Your task to perform on an android device: change notifications settings Image 0: 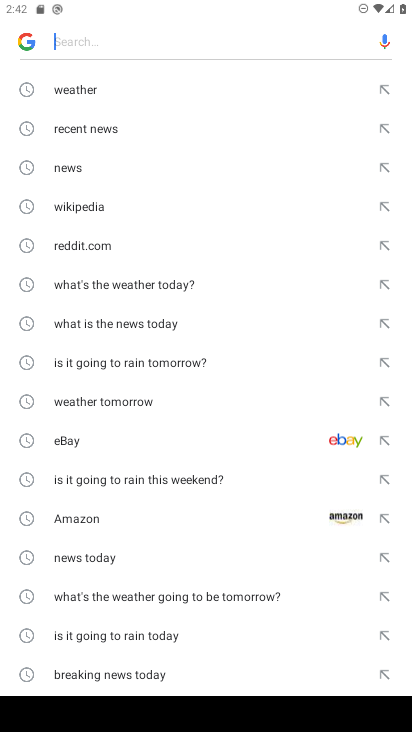
Step 0: press home button
Your task to perform on an android device: change notifications settings Image 1: 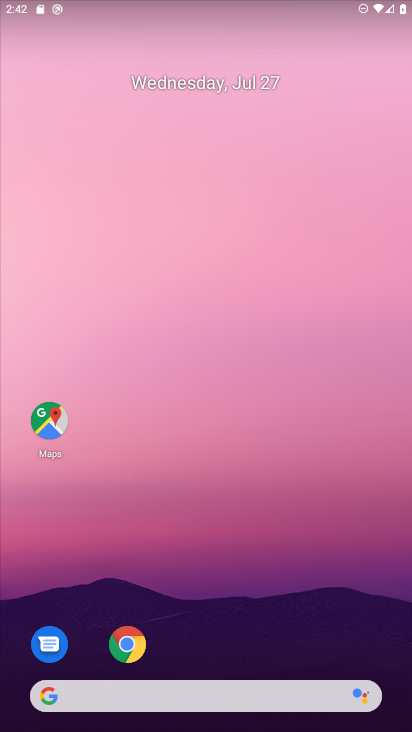
Step 1: drag from (221, 603) to (285, 176)
Your task to perform on an android device: change notifications settings Image 2: 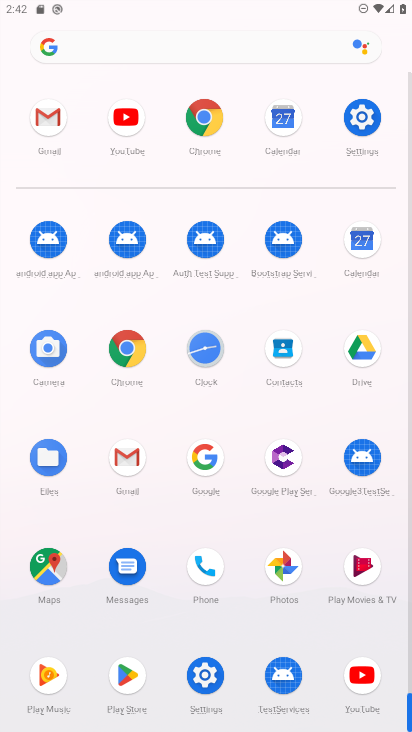
Step 2: click (209, 679)
Your task to perform on an android device: change notifications settings Image 3: 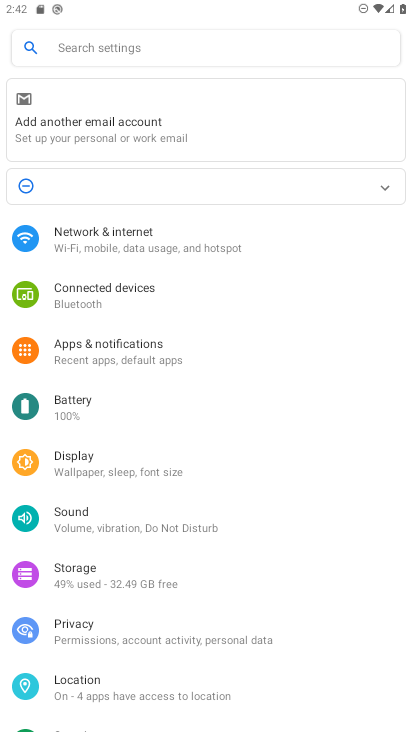
Step 3: click (111, 357)
Your task to perform on an android device: change notifications settings Image 4: 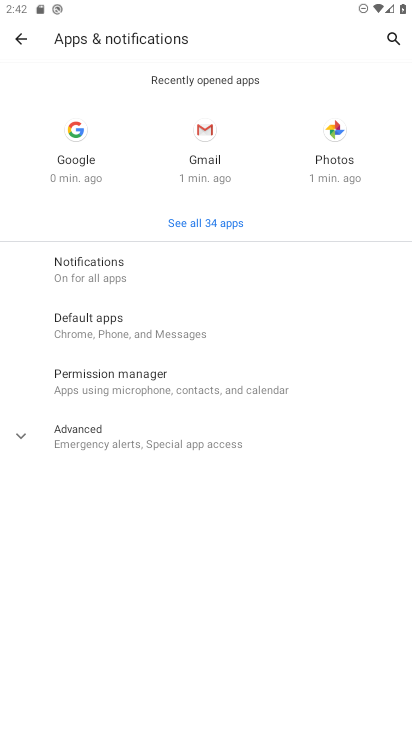
Step 4: click (87, 269)
Your task to perform on an android device: change notifications settings Image 5: 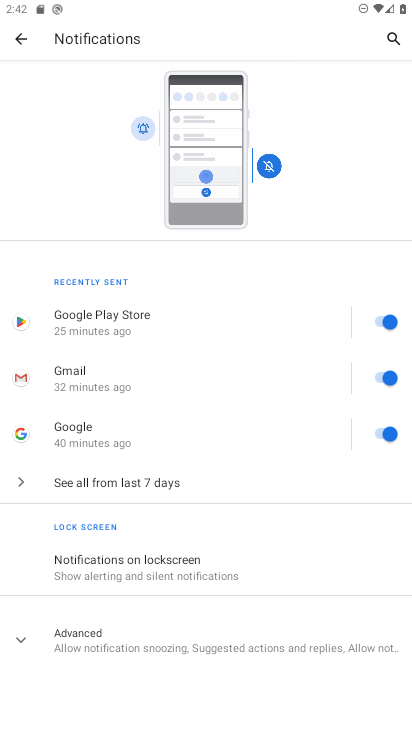
Step 5: click (129, 478)
Your task to perform on an android device: change notifications settings Image 6: 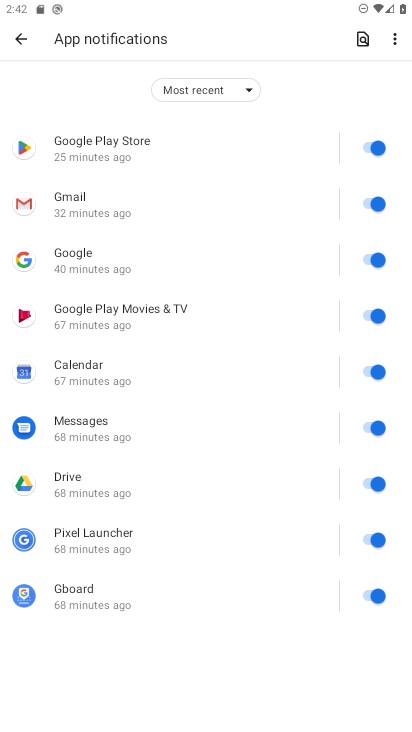
Step 6: click (363, 148)
Your task to perform on an android device: change notifications settings Image 7: 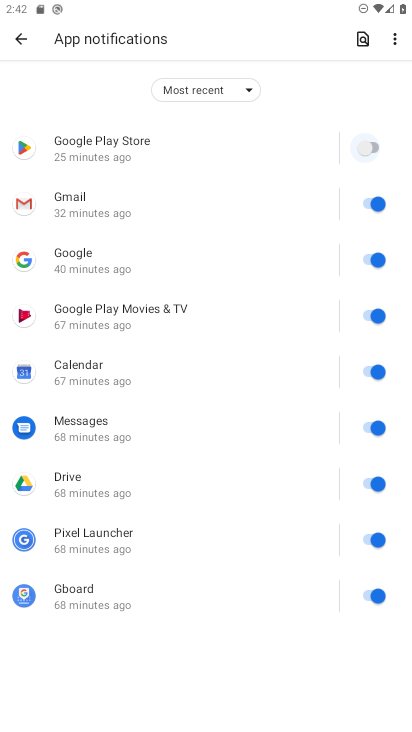
Step 7: click (359, 209)
Your task to perform on an android device: change notifications settings Image 8: 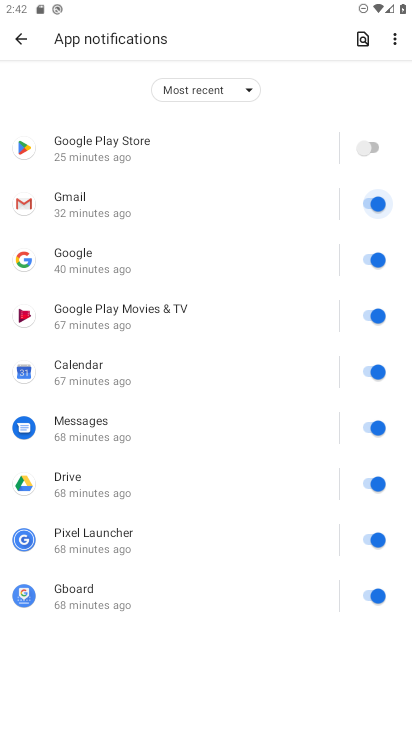
Step 8: click (366, 261)
Your task to perform on an android device: change notifications settings Image 9: 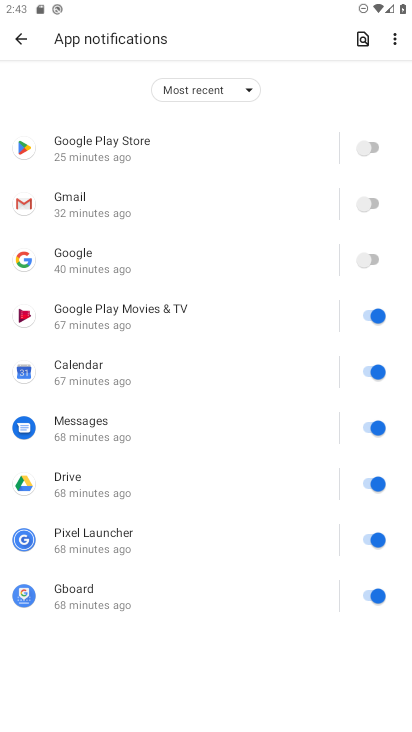
Step 9: click (364, 319)
Your task to perform on an android device: change notifications settings Image 10: 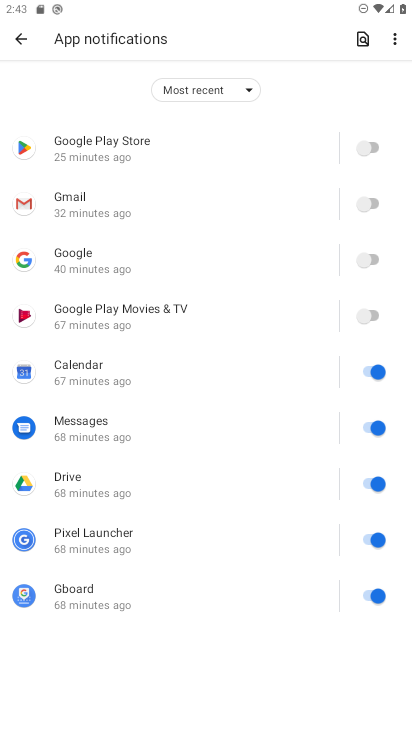
Step 10: click (345, 377)
Your task to perform on an android device: change notifications settings Image 11: 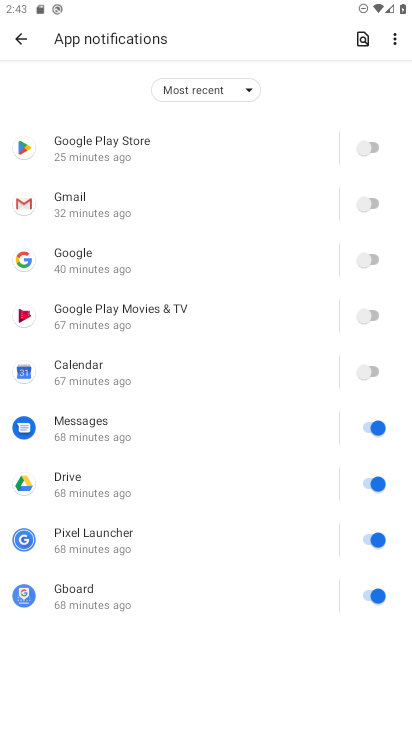
Step 11: click (339, 434)
Your task to perform on an android device: change notifications settings Image 12: 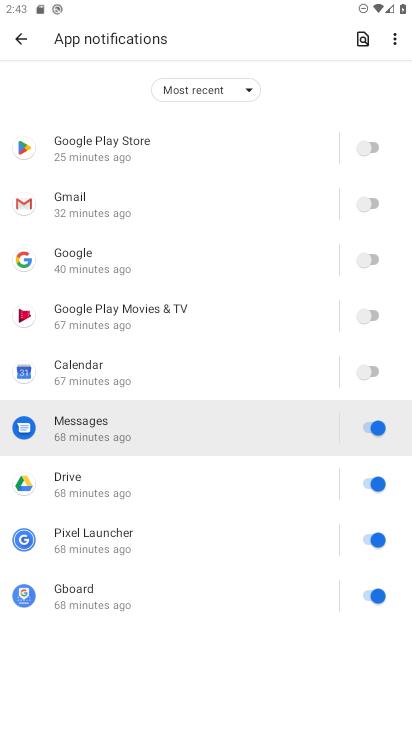
Step 12: click (341, 482)
Your task to perform on an android device: change notifications settings Image 13: 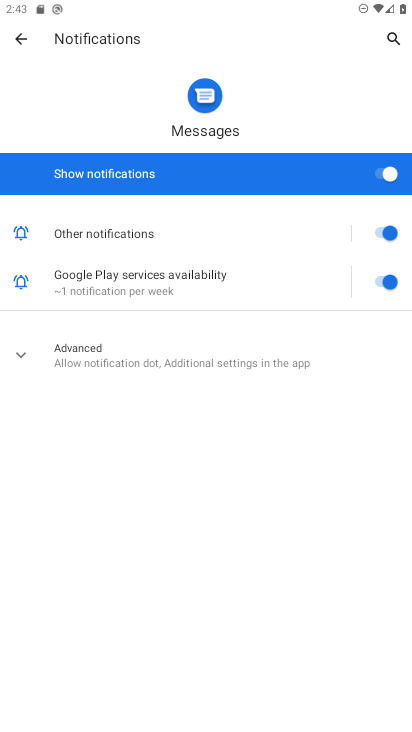
Step 13: click (16, 25)
Your task to perform on an android device: change notifications settings Image 14: 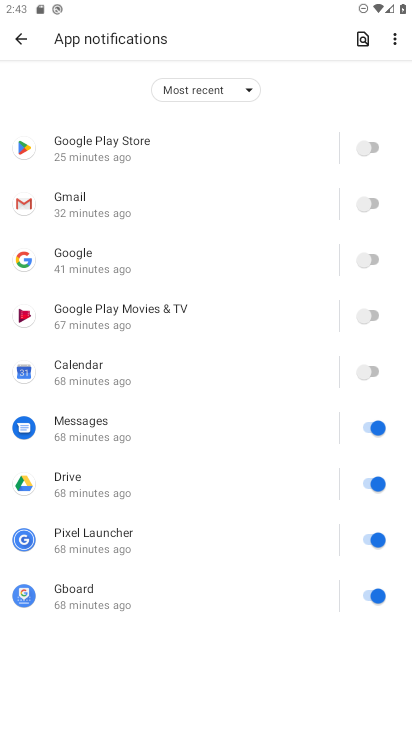
Step 14: click (362, 417)
Your task to perform on an android device: change notifications settings Image 15: 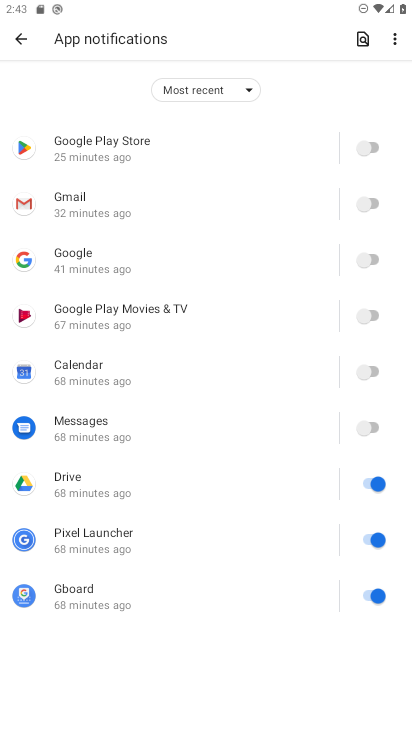
Step 15: click (366, 482)
Your task to perform on an android device: change notifications settings Image 16: 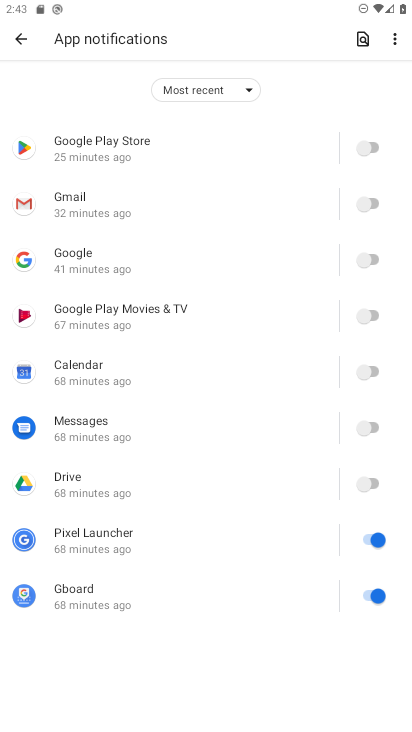
Step 16: click (362, 544)
Your task to perform on an android device: change notifications settings Image 17: 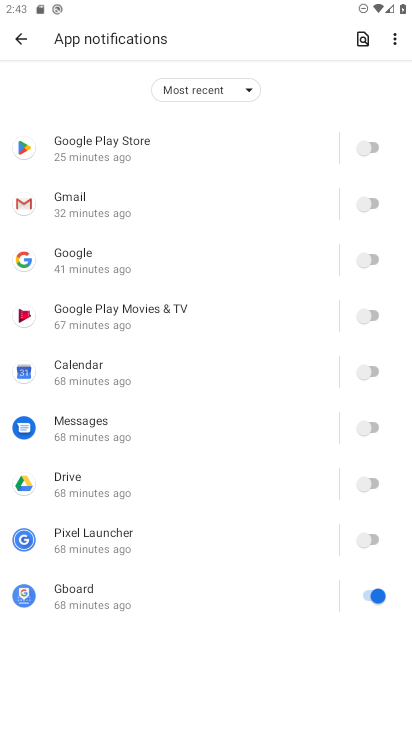
Step 17: click (356, 588)
Your task to perform on an android device: change notifications settings Image 18: 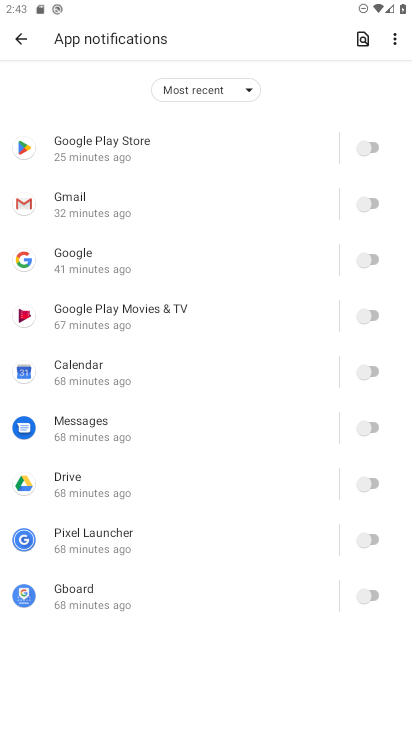
Step 18: task complete